Your task to perform on an android device: change the clock display to analog Image 0: 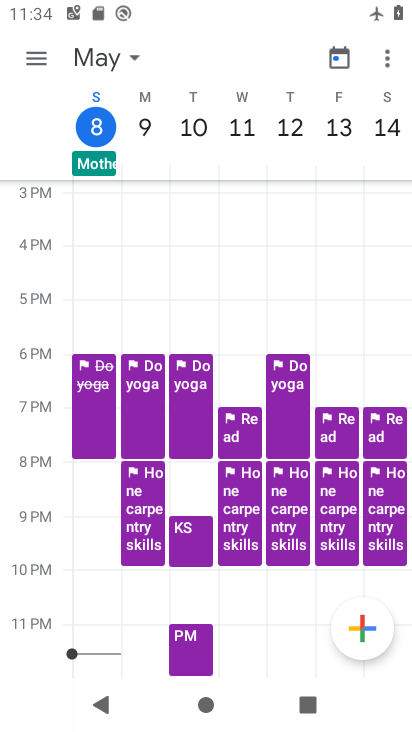
Step 0: press home button
Your task to perform on an android device: change the clock display to analog Image 1: 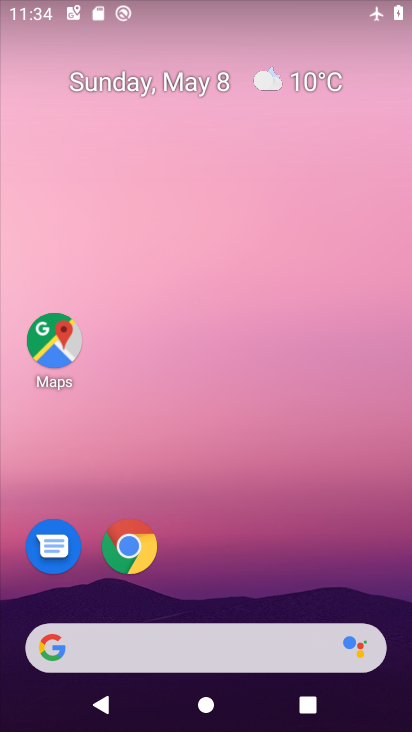
Step 1: drag from (388, 614) to (321, 6)
Your task to perform on an android device: change the clock display to analog Image 2: 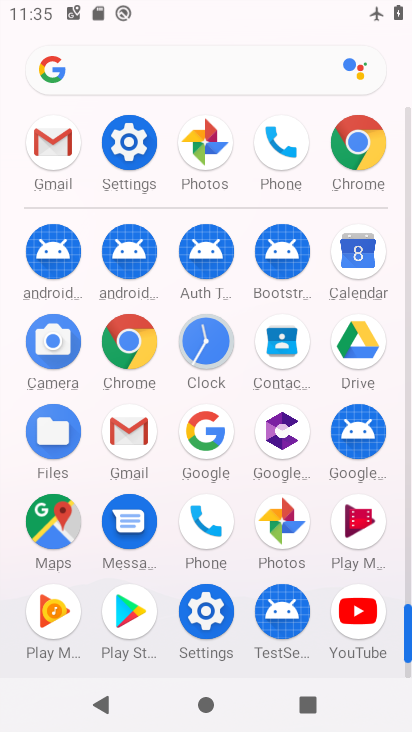
Step 2: click (205, 341)
Your task to perform on an android device: change the clock display to analog Image 3: 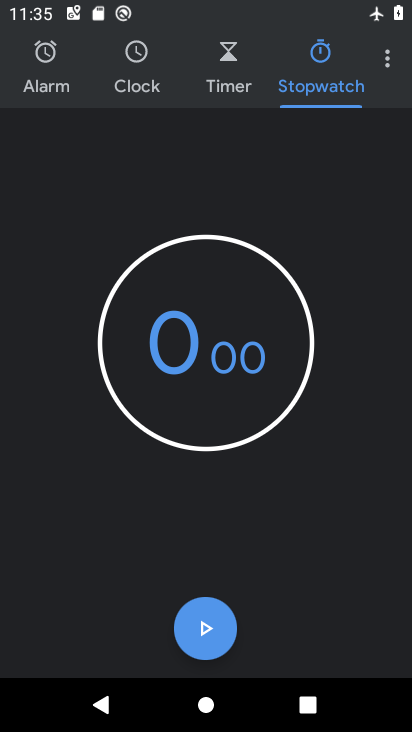
Step 3: click (387, 61)
Your task to perform on an android device: change the clock display to analog Image 4: 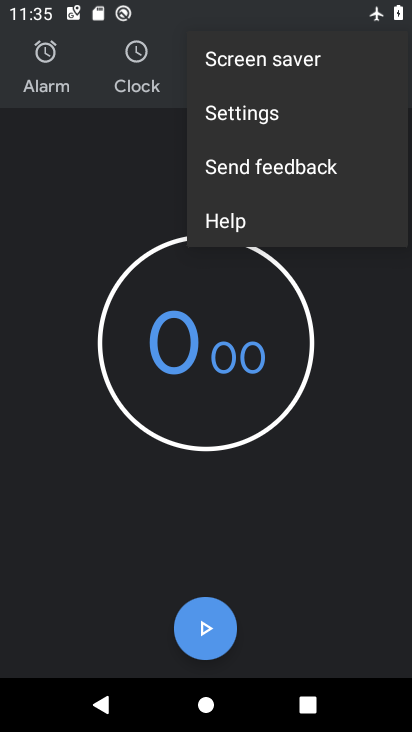
Step 4: click (261, 122)
Your task to perform on an android device: change the clock display to analog Image 5: 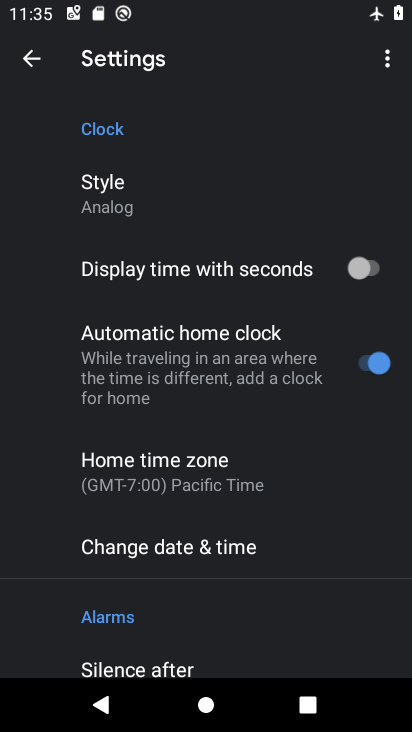
Step 5: task complete